Your task to perform on an android device: Search for Italian restaurants on Maps Image 0: 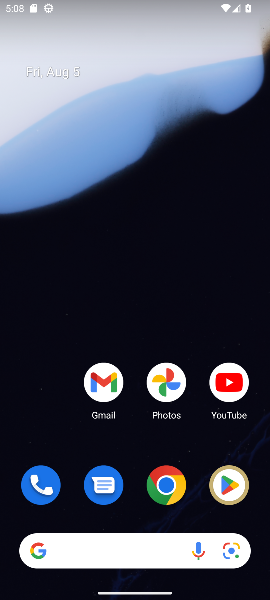
Step 0: drag from (58, 428) to (152, 68)
Your task to perform on an android device: Search for Italian restaurants on Maps Image 1: 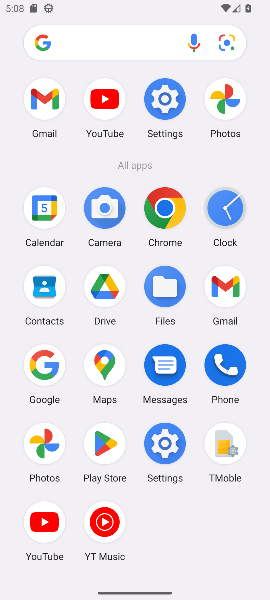
Step 1: click (100, 369)
Your task to perform on an android device: Search for Italian restaurants on Maps Image 2: 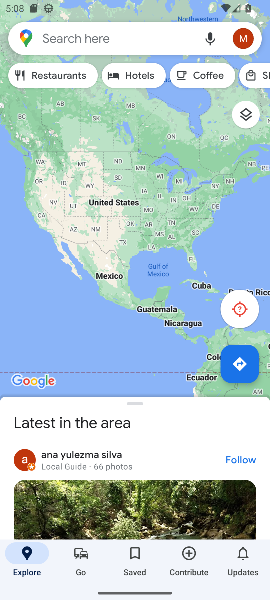
Step 2: click (151, 39)
Your task to perform on an android device: Search for Italian restaurants on Maps Image 3: 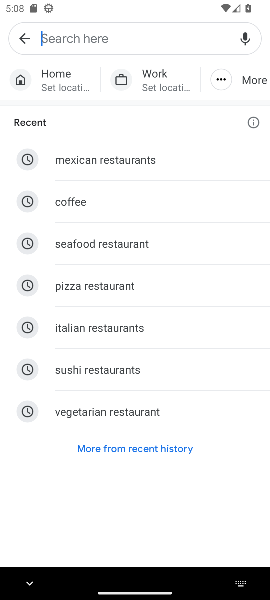
Step 3: click (126, 326)
Your task to perform on an android device: Search for Italian restaurants on Maps Image 4: 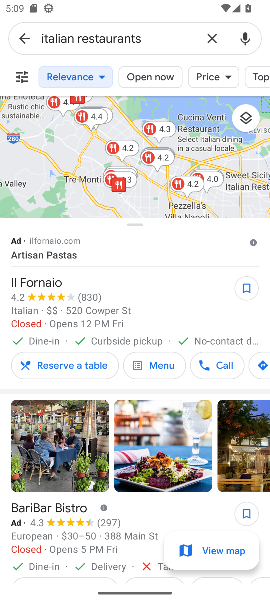
Step 4: task complete